Your task to perform on an android device: Open Wikipedia Image 0: 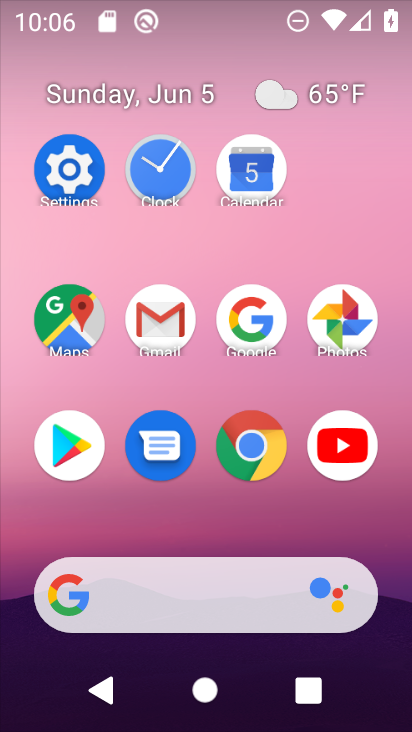
Step 0: click (270, 458)
Your task to perform on an android device: Open Wikipedia Image 1: 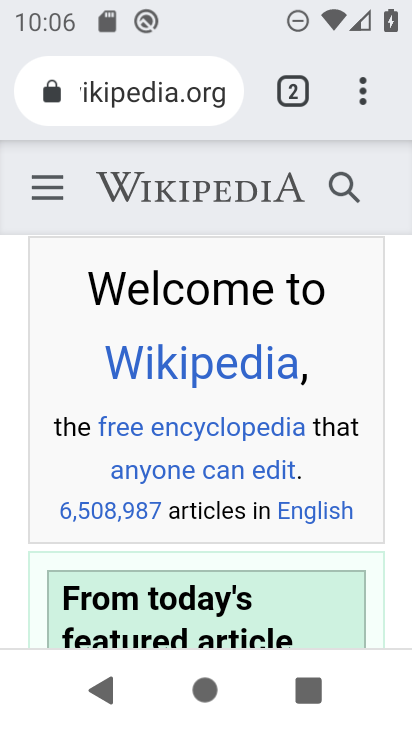
Step 1: task complete